Your task to perform on an android device: change text size in settings app Image 0: 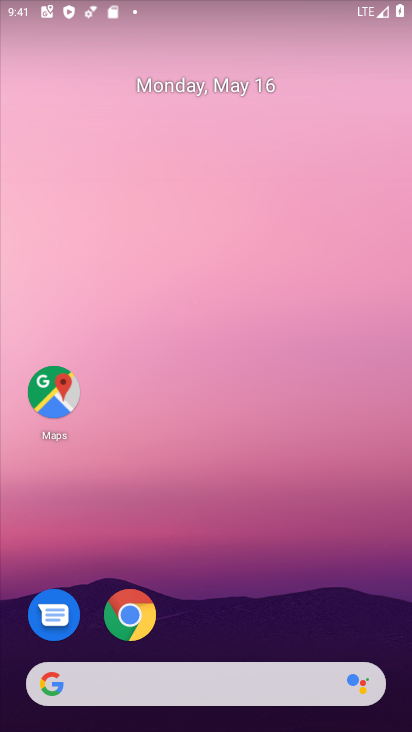
Step 0: drag from (277, 572) to (248, 110)
Your task to perform on an android device: change text size in settings app Image 1: 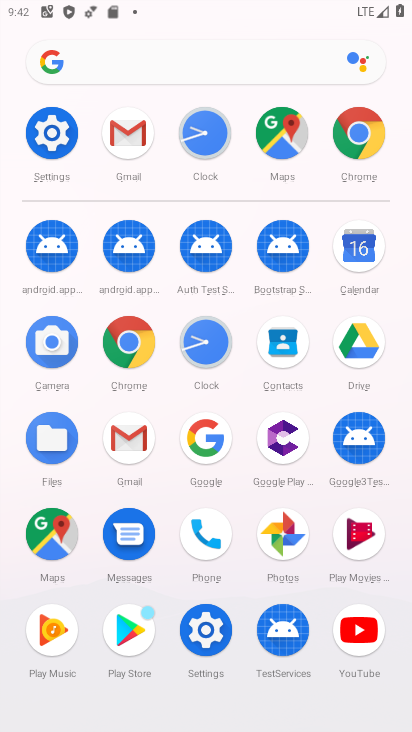
Step 1: click (66, 155)
Your task to perform on an android device: change text size in settings app Image 2: 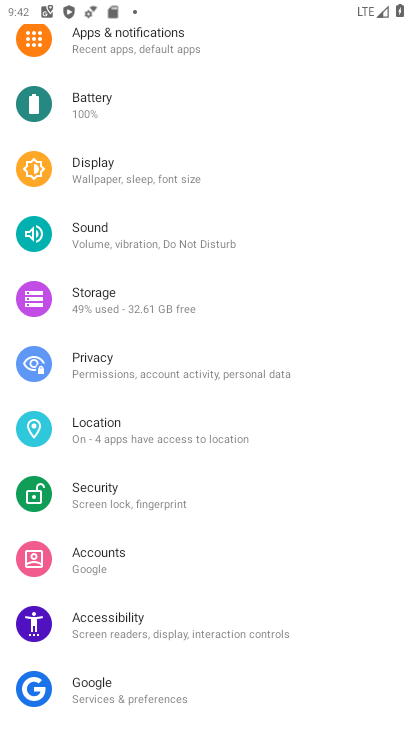
Step 2: drag from (107, 532) to (169, 664)
Your task to perform on an android device: change text size in settings app Image 3: 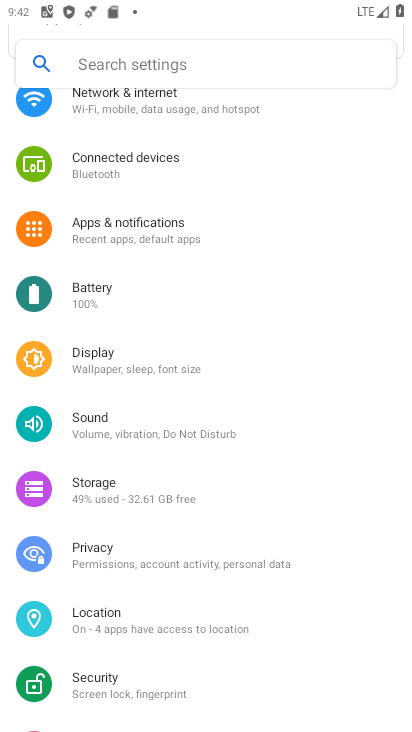
Step 3: drag from (134, 450) to (150, 690)
Your task to perform on an android device: change text size in settings app Image 4: 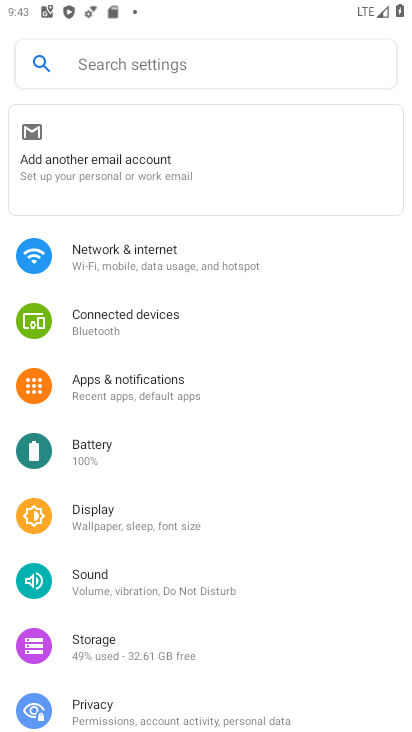
Step 4: drag from (182, 544) to (183, 406)
Your task to perform on an android device: change text size in settings app Image 5: 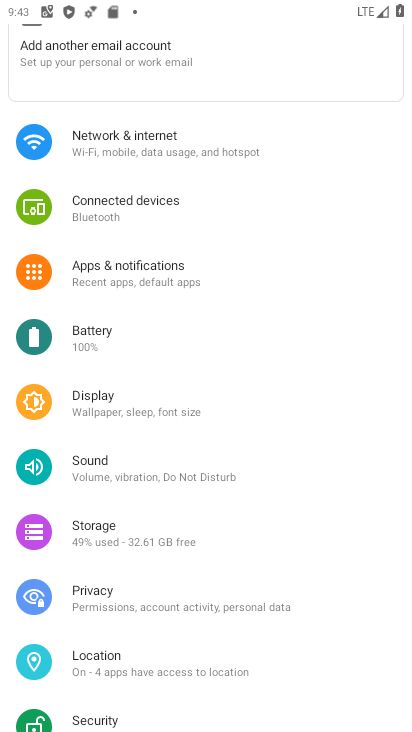
Step 5: drag from (170, 539) to (171, 440)
Your task to perform on an android device: change text size in settings app Image 6: 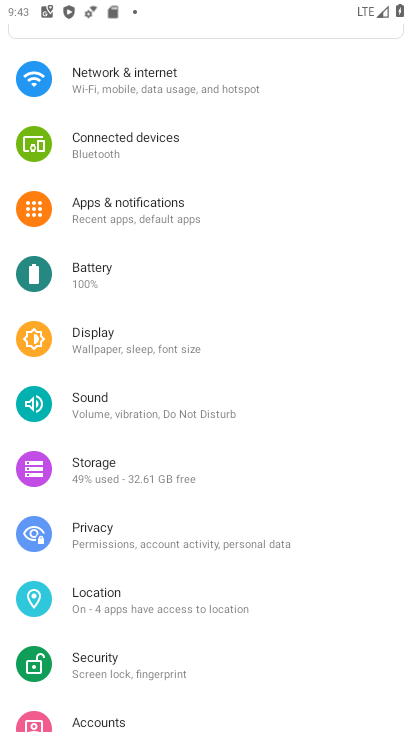
Step 6: drag from (126, 534) to (123, 415)
Your task to perform on an android device: change text size in settings app Image 7: 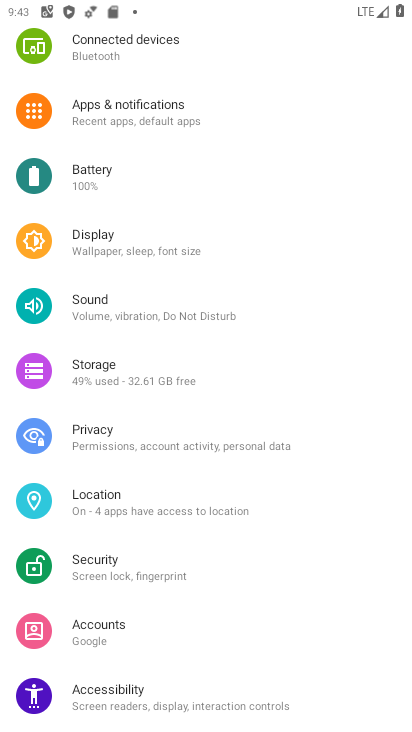
Step 7: click (120, 250)
Your task to perform on an android device: change text size in settings app Image 8: 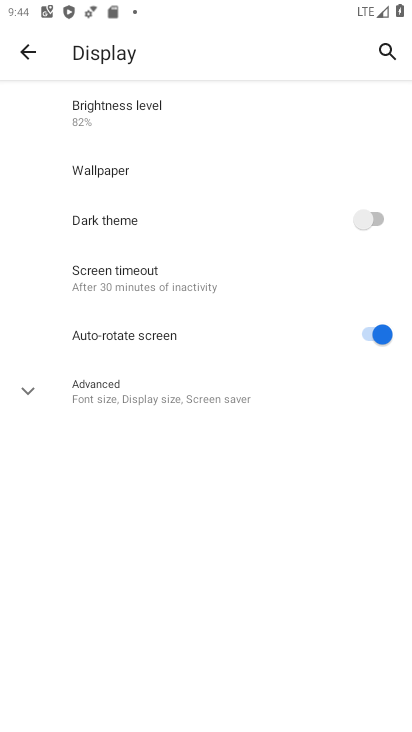
Step 8: click (143, 392)
Your task to perform on an android device: change text size in settings app Image 9: 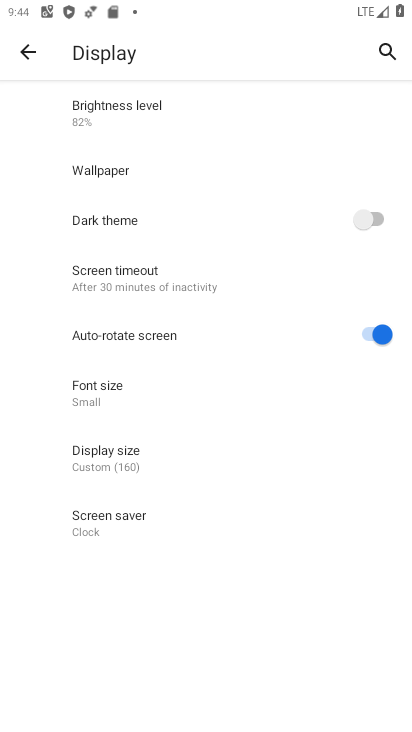
Step 9: click (101, 385)
Your task to perform on an android device: change text size in settings app Image 10: 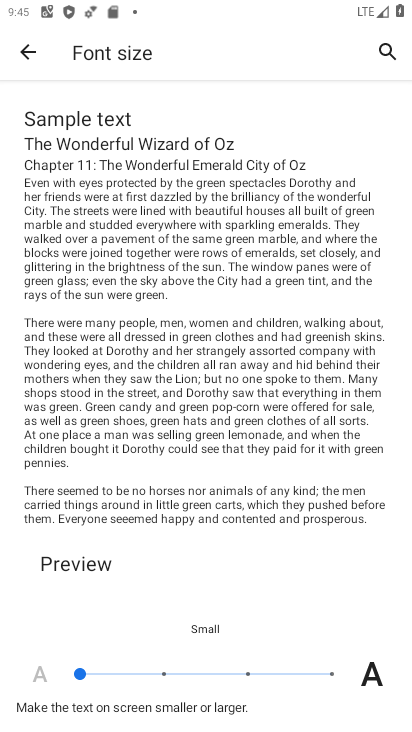
Step 10: click (164, 678)
Your task to perform on an android device: change text size in settings app Image 11: 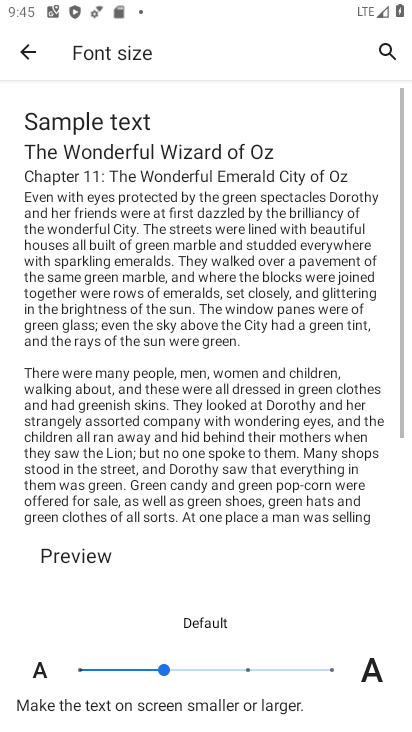
Step 11: task complete